Your task to perform on an android device: move a message to another label in the gmail app Image 0: 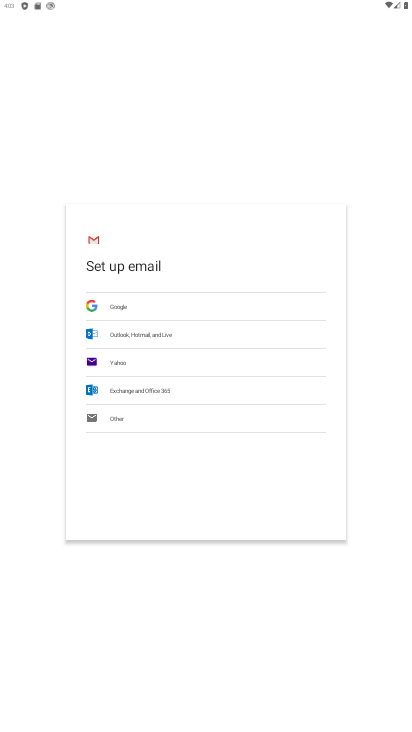
Step 0: press home button
Your task to perform on an android device: move a message to another label in the gmail app Image 1: 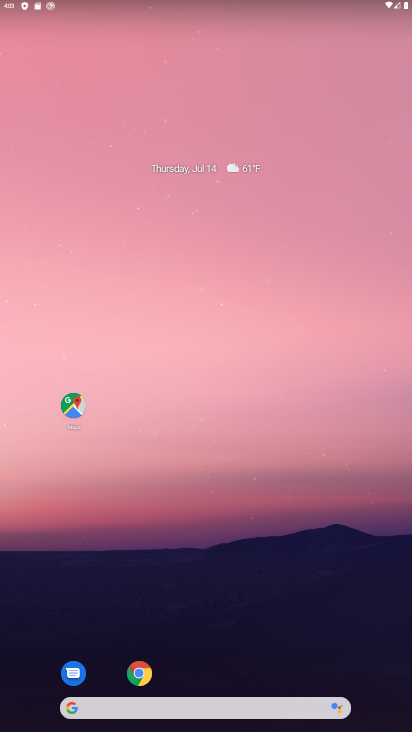
Step 1: drag from (193, 675) to (191, 76)
Your task to perform on an android device: move a message to another label in the gmail app Image 2: 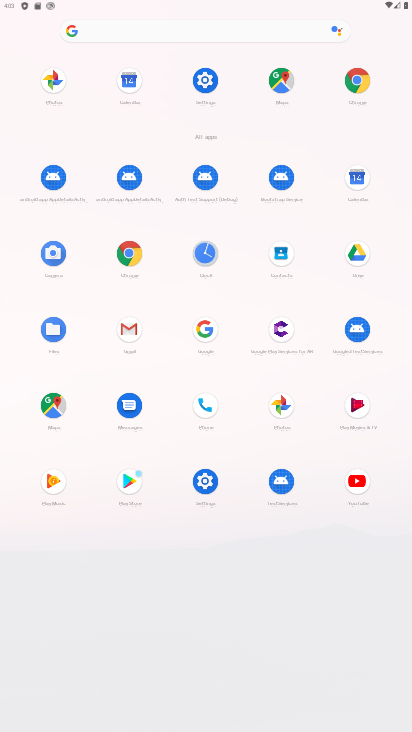
Step 2: click (124, 325)
Your task to perform on an android device: move a message to another label in the gmail app Image 3: 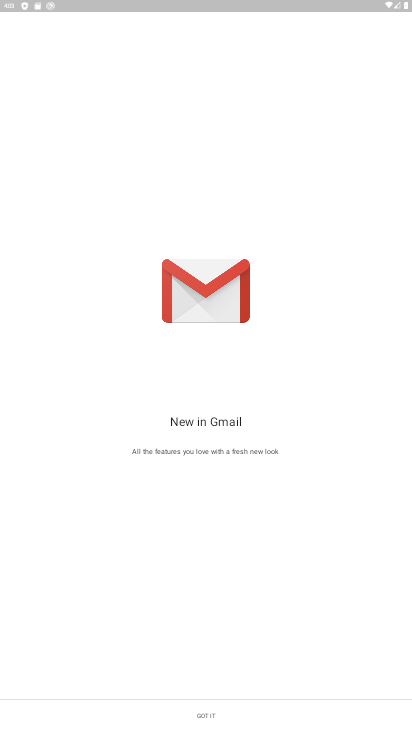
Step 3: click (223, 707)
Your task to perform on an android device: move a message to another label in the gmail app Image 4: 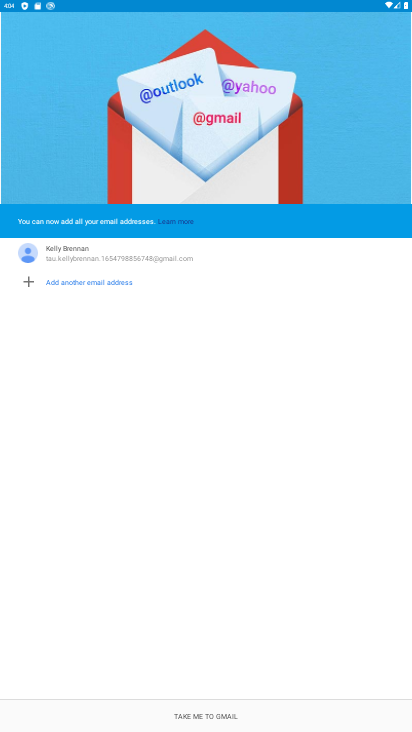
Step 4: click (202, 711)
Your task to perform on an android device: move a message to another label in the gmail app Image 5: 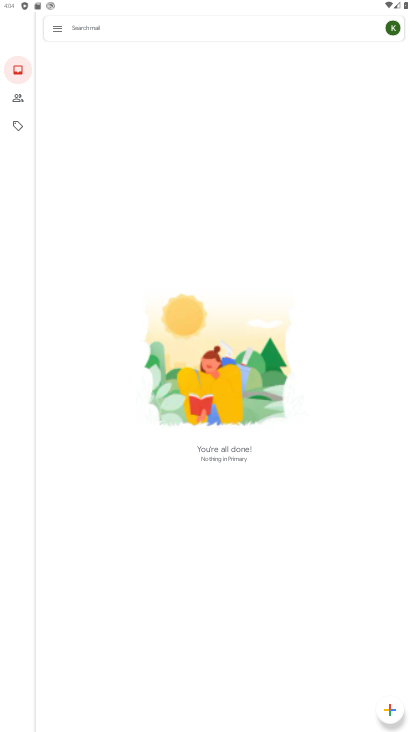
Step 5: task complete